Your task to perform on an android device: Search for Mexican restaurants on Maps Image 0: 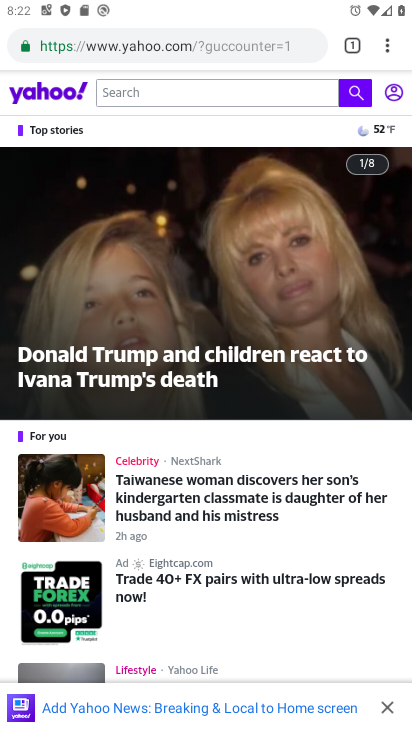
Step 0: press home button
Your task to perform on an android device: Search for Mexican restaurants on Maps Image 1: 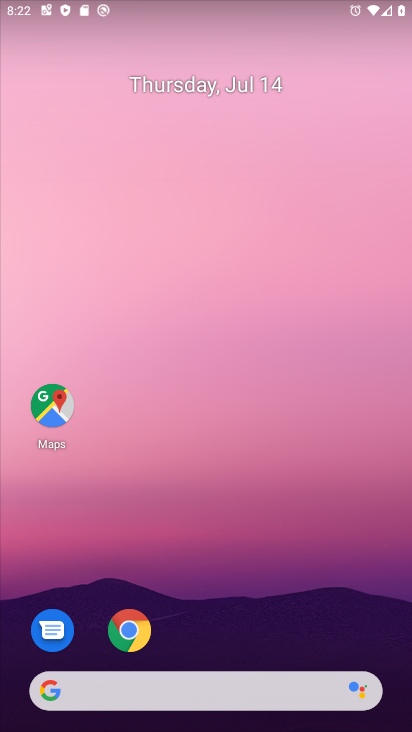
Step 1: drag from (237, 718) to (249, 150)
Your task to perform on an android device: Search for Mexican restaurants on Maps Image 2: 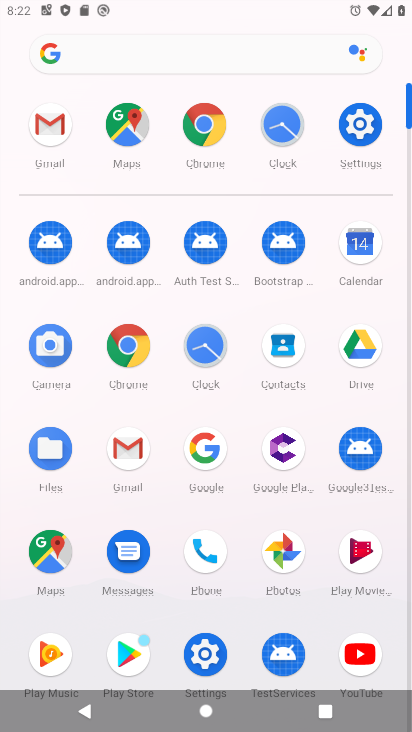
Step 2: click (50, 549)
Your task to perform on an android device: Search for Mexican restaurants on Maps Image 3: 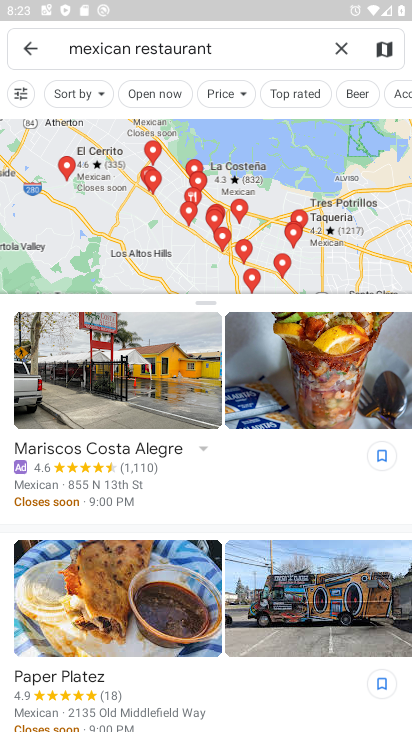
Step 3: task complete